Your task to perform on an android device: set default search engine in the chrome app Image 0: 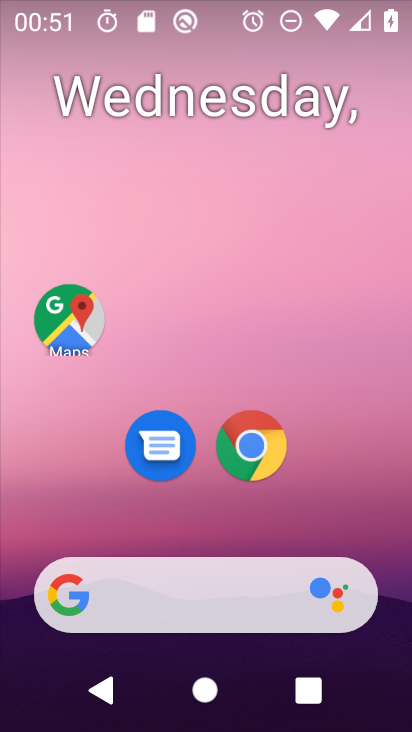
Step 0: click (256, 440)
Your task to perform on an android device: set default search engine in the chrome app Image 1: 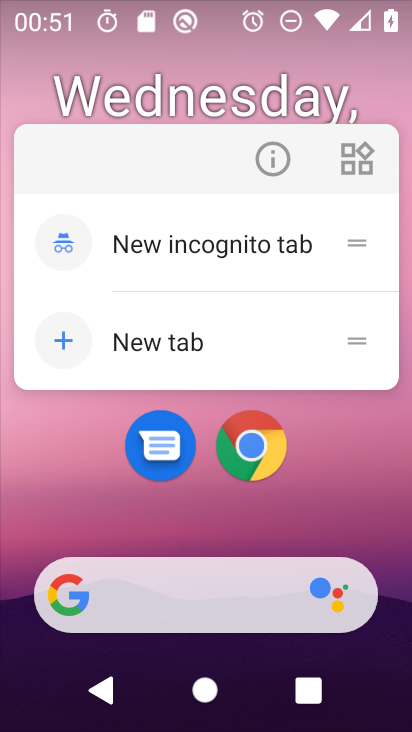
Step 1: click (258, 440)
Your task to perform on an android device: set default search engine in the chrome app Image 2: 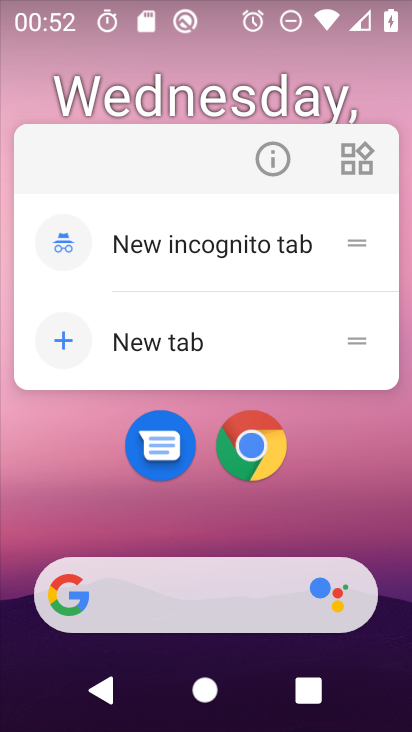
Step 2: click (269, 430)
Your task to perform on an android device: set default search engine in the chrome app Image 3: 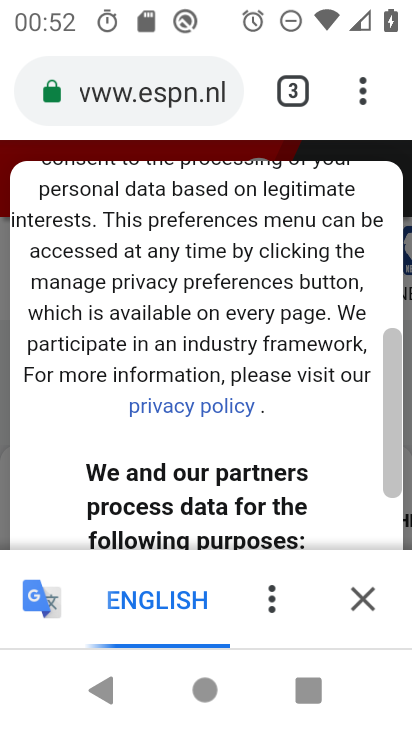
Step 3: click (352, 97)
Your task to perform on an android device: set default search engine in the chrome app Image 4: 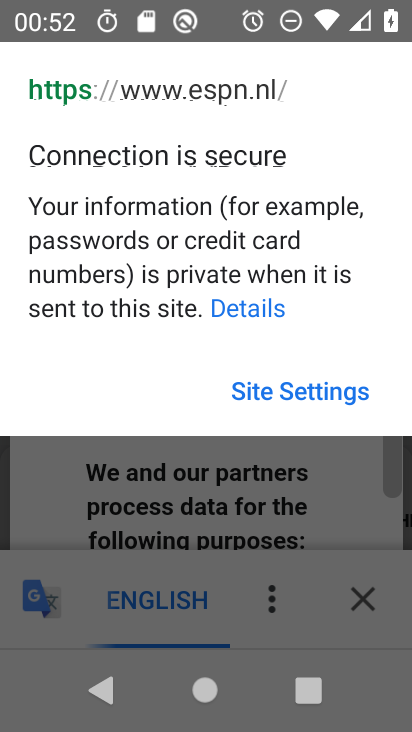
Step 4: press back button
Your task to perform on an android device: set default search engine in the chrome app Image 5: 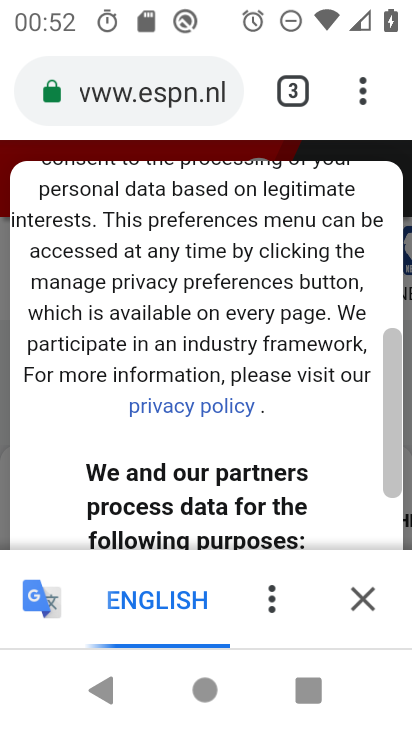
Step 5: click (359, 96)
Your task to perform on an android device: set default search engine in the chrome app Image 6: 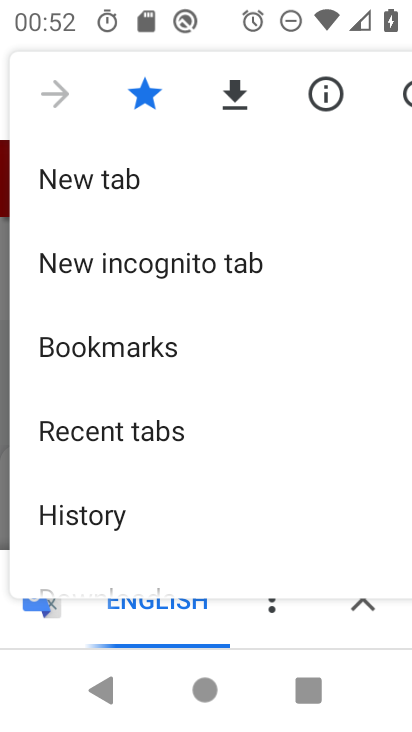
Step 6: drag from (162, 492) to (230, 137)
Your task to perform on an android device: set default search engine in the chrome app Image 7: 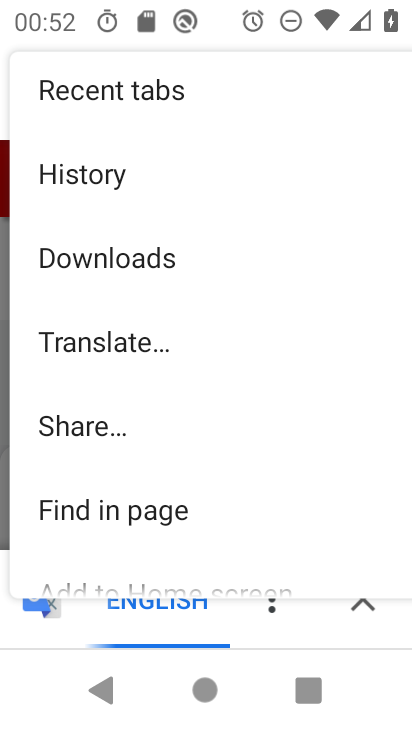
Step 7: drag from (106, 494) to (108, 252)
Your task to perform on an android device: set default search engine in the chrome app Image 8: 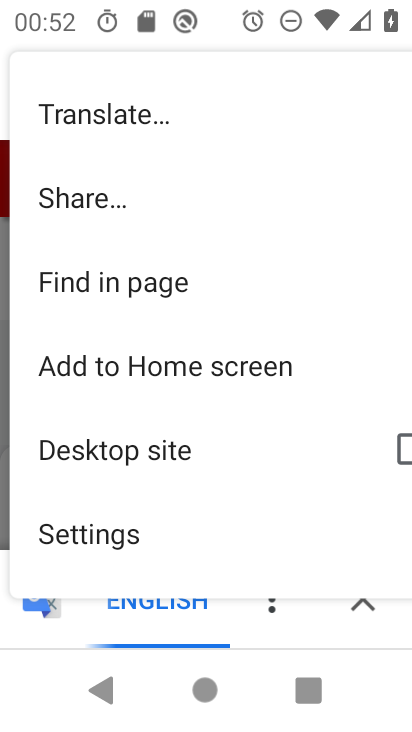
Step 8: click (129, 514)
Your task to perform on an android device: set default search engine in the chrome app Image 9: 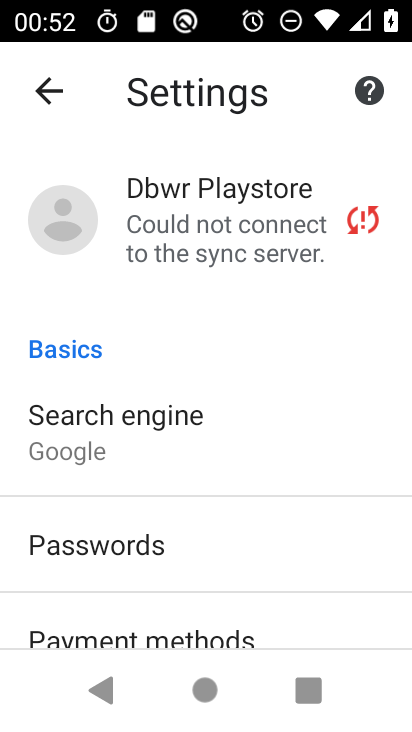
Step 9: click (182, 444)
Your task to perform on an android device: set default search engine in the chrome app Image 10: 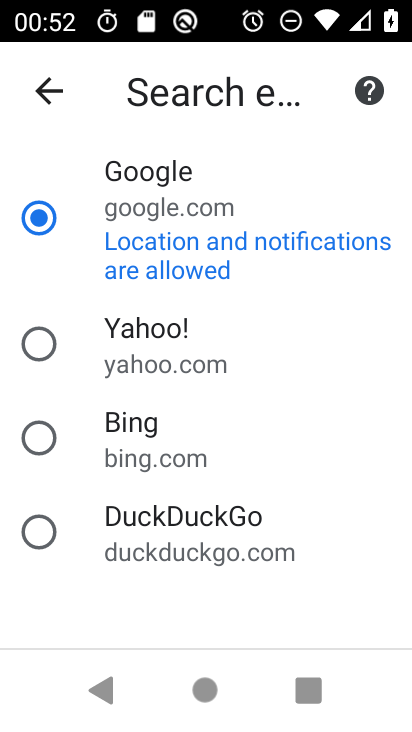
Step 10: click (202, 327)
Your task to perform on an android device: set default search engine in the chrome app Image 11: 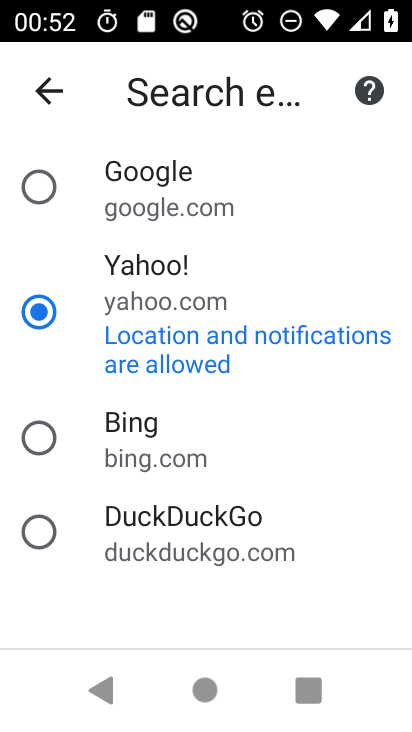
Step 11: task complete